Your task to perform on an android device: When is my next meeting? Image 0: 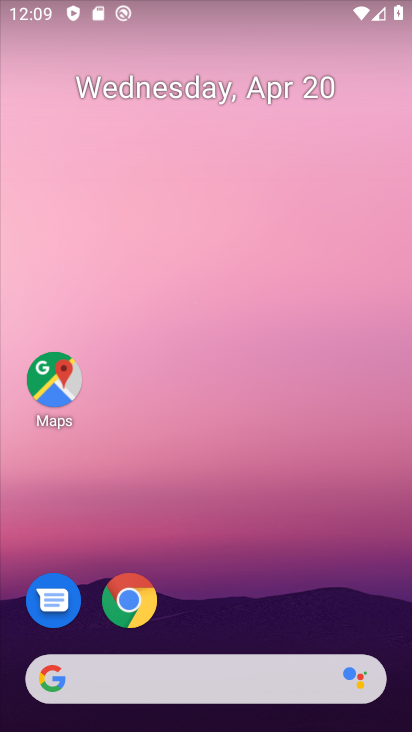
Step 0: drag from (290, 454) to (256, 49)
Your task to perform on an android device: When is my next meeting? Image 1: 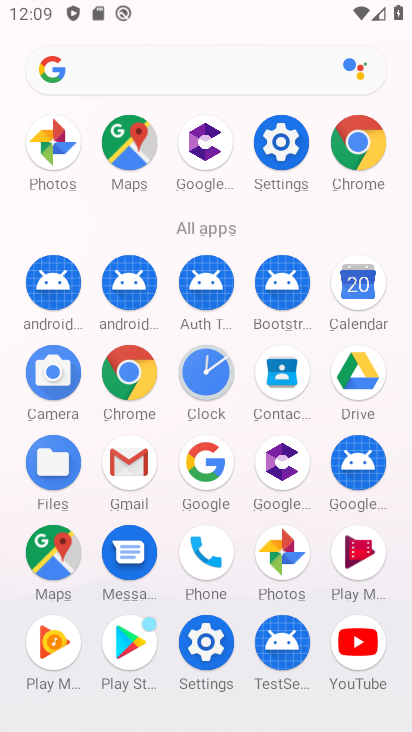
Step 1: drag from (6, 469) to (23, 109)
Your task to perform on an android device: When is my next meeting? Image 2: 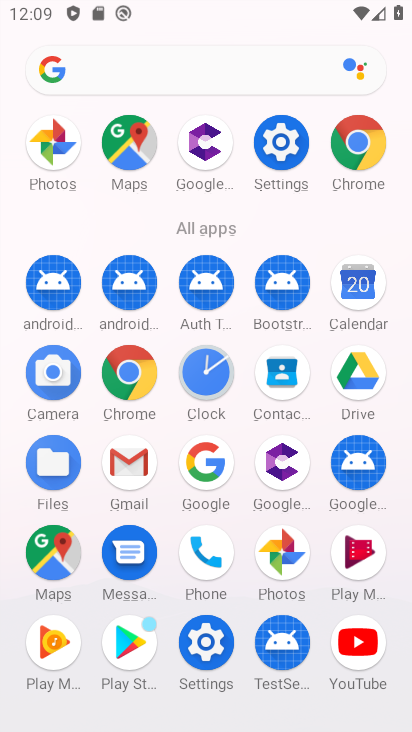
Step 2: click (357, 274)
Your task to perform on an android device: When is my next meeting? Image 3: 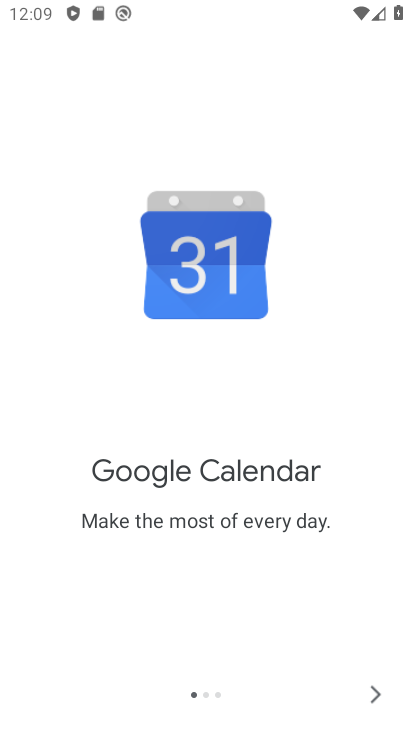
Step 3: click (376, 688)
Your task to perform on an android device: When is my next meeting? Image 4: 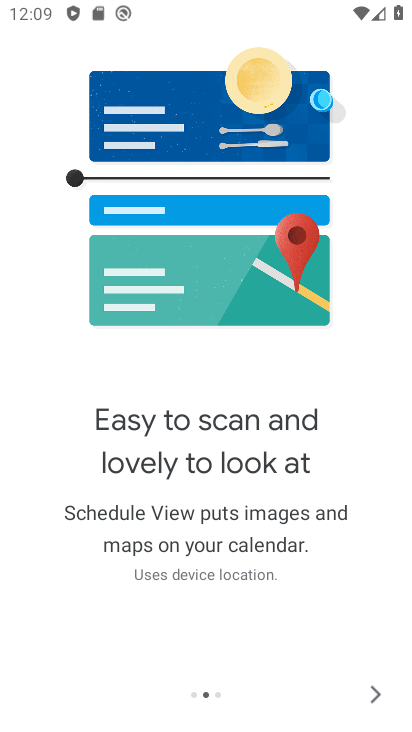
Step 4: click (376, 685)
Your task to perform on an android device: When is my next meeting? Image 5: 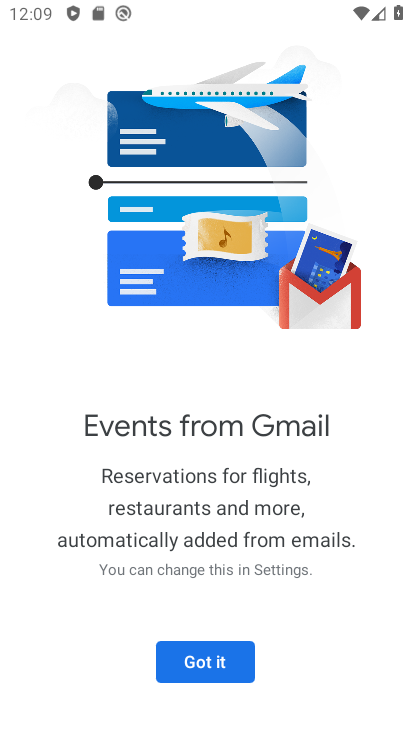
Step 5: click (244, 655)
Your task to perform on an android device: When is my next meeting? Image 6: 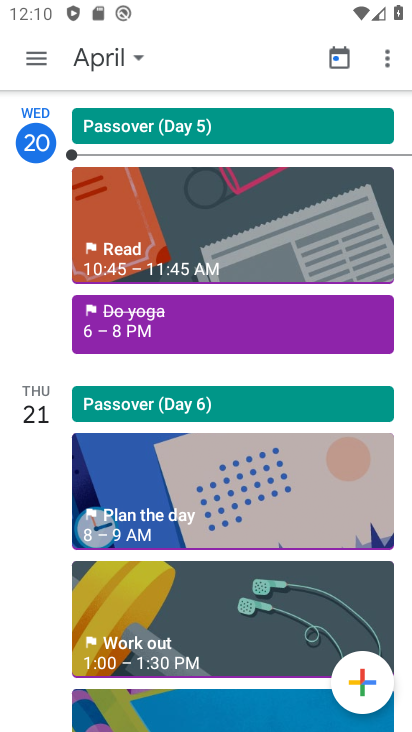
Step 6: click (89, 64)
Your task to perform on an android device: When is my next meeting? Image 7: 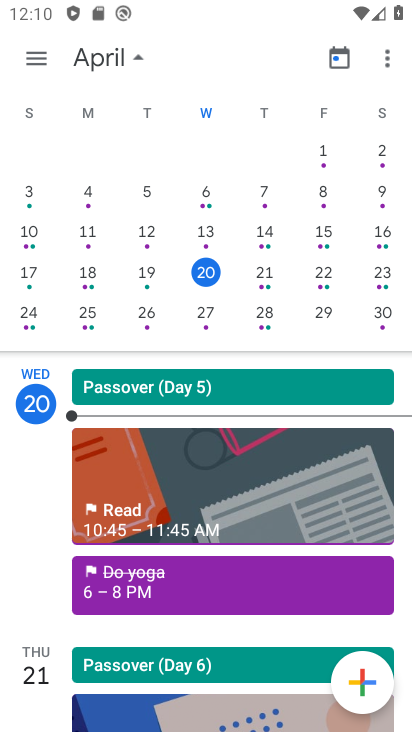
Step 7: click (22, 55)
Your task to perform on an android device: When is my next meeting? Image 8: 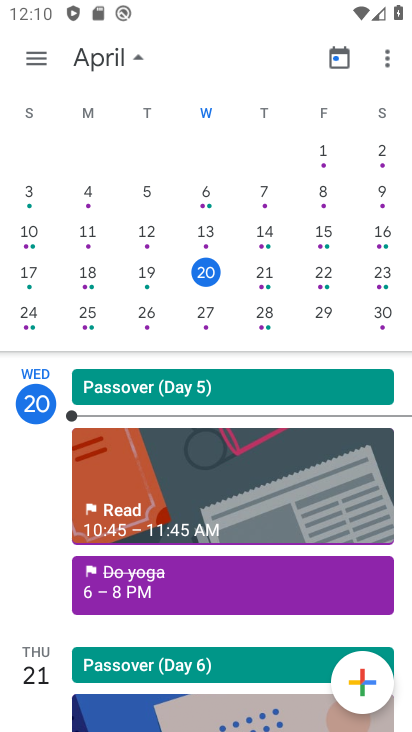
Step 8: click (34, 55)
Your task to perform on an android device: When is my next meeting? Image 9: 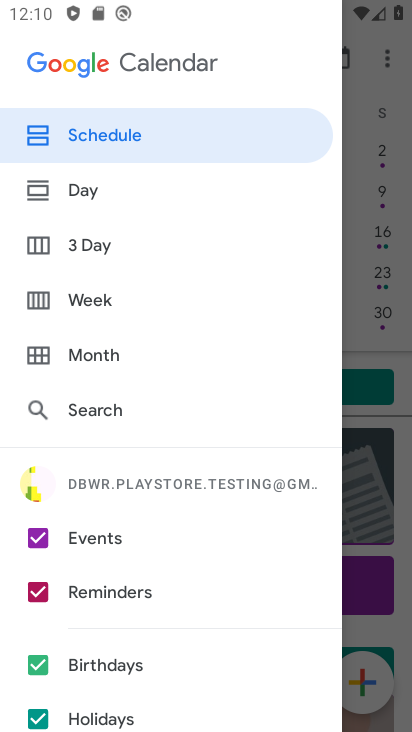
Step 9: click (47, 531)
Your task to perform on an android device: When is my next meeting? Image 10: 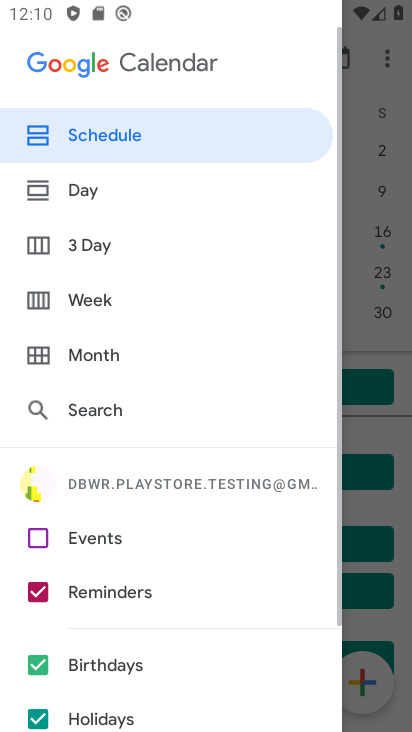
Step 10: click (47, 531)
Your task to perform on an android device: When is my next meeting? Image 11: 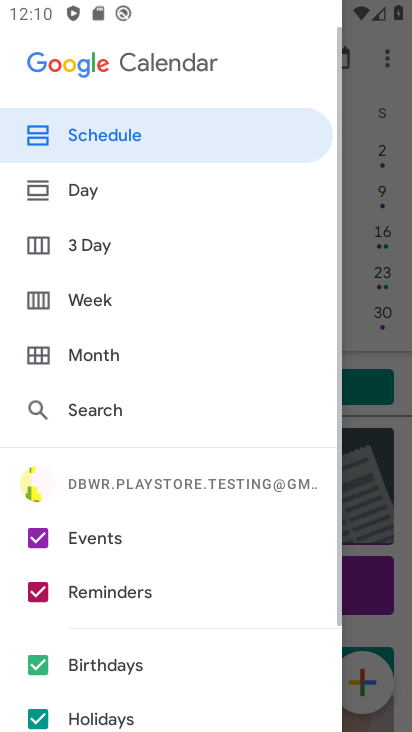
Step 11: click (35, 661)
Your task to perform on an android device: When is my next meeting? Image 12: 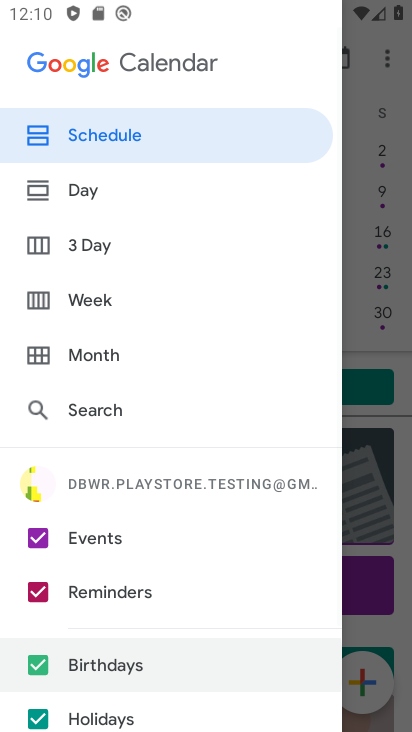
Step 12: click (38, 720)
Your task to perform on an android device: When is my next meeting? Image 13: 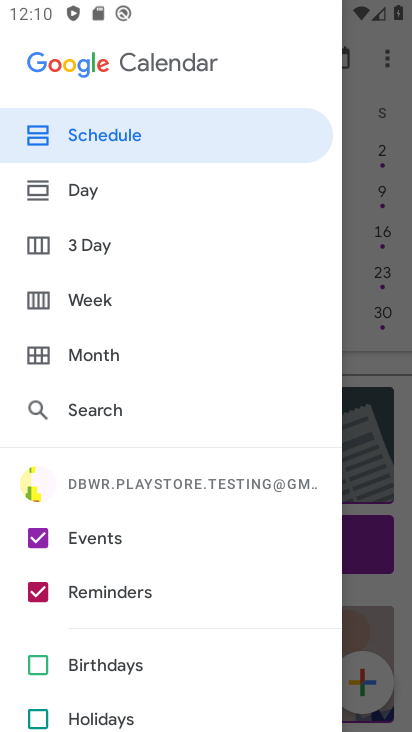
Step 13: click (159, 124)
Your task to perform on an android device: When is my next meeting? Image 14: 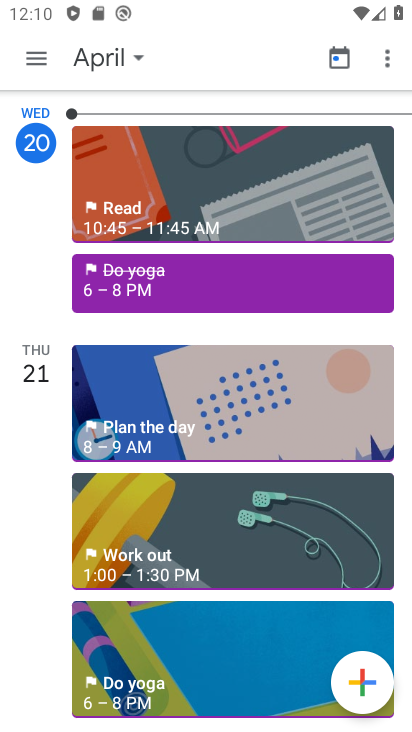
Step 14: task complete